Your task to perform on an android device: Show me the alarms in the clock app Image 0: 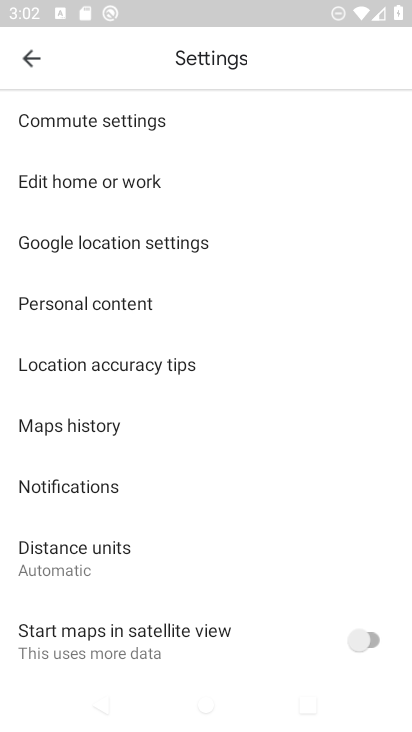
Step 0: press home button
Your task to perform on an android device: Show me the alarms in the clock app Image 1: 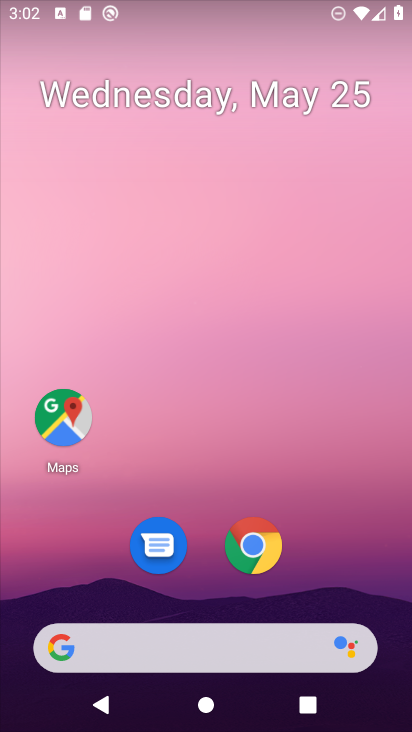
Step 1: drag from (367, 559) to (283, 113)
Your task to perform on an android device: Show me the alarms in the clock app Image 2: 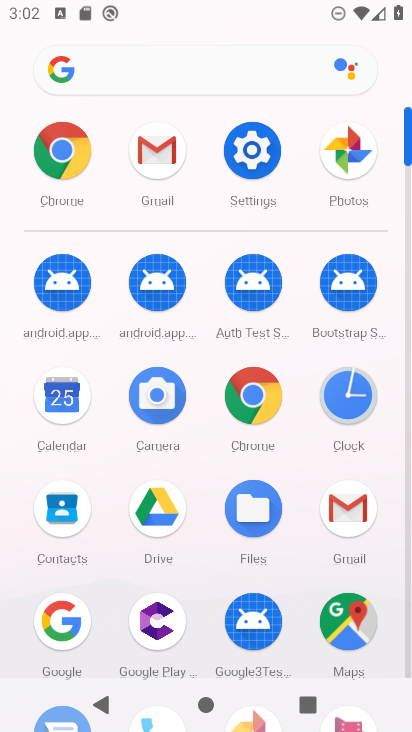
Step 2: click (333, 375)
Your task to perform on an android device: Show me the alarms in the clock app Image 3: 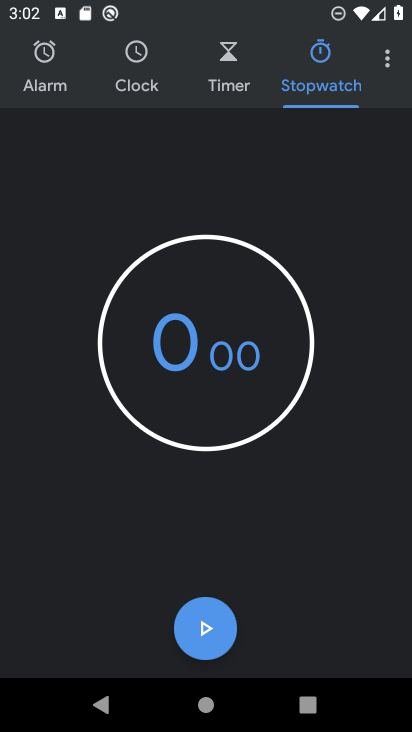
Step 3: click (30, 53)
Your task to perform on an android device: Show me the alarms in the clock app Image 4: 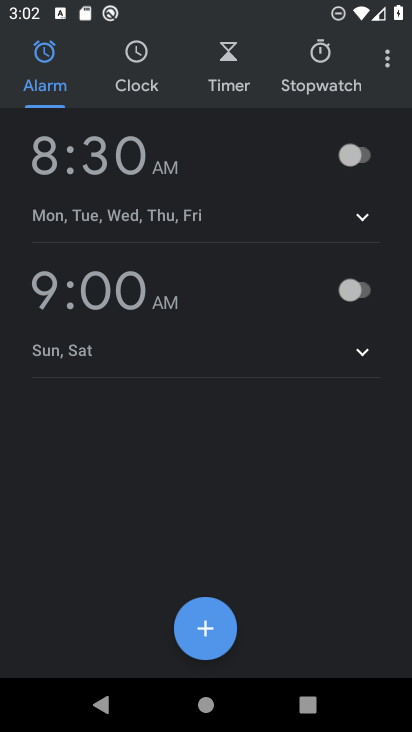
Step 4: task complete